Your task to perform on an android device: Go to notification settings Image 0: 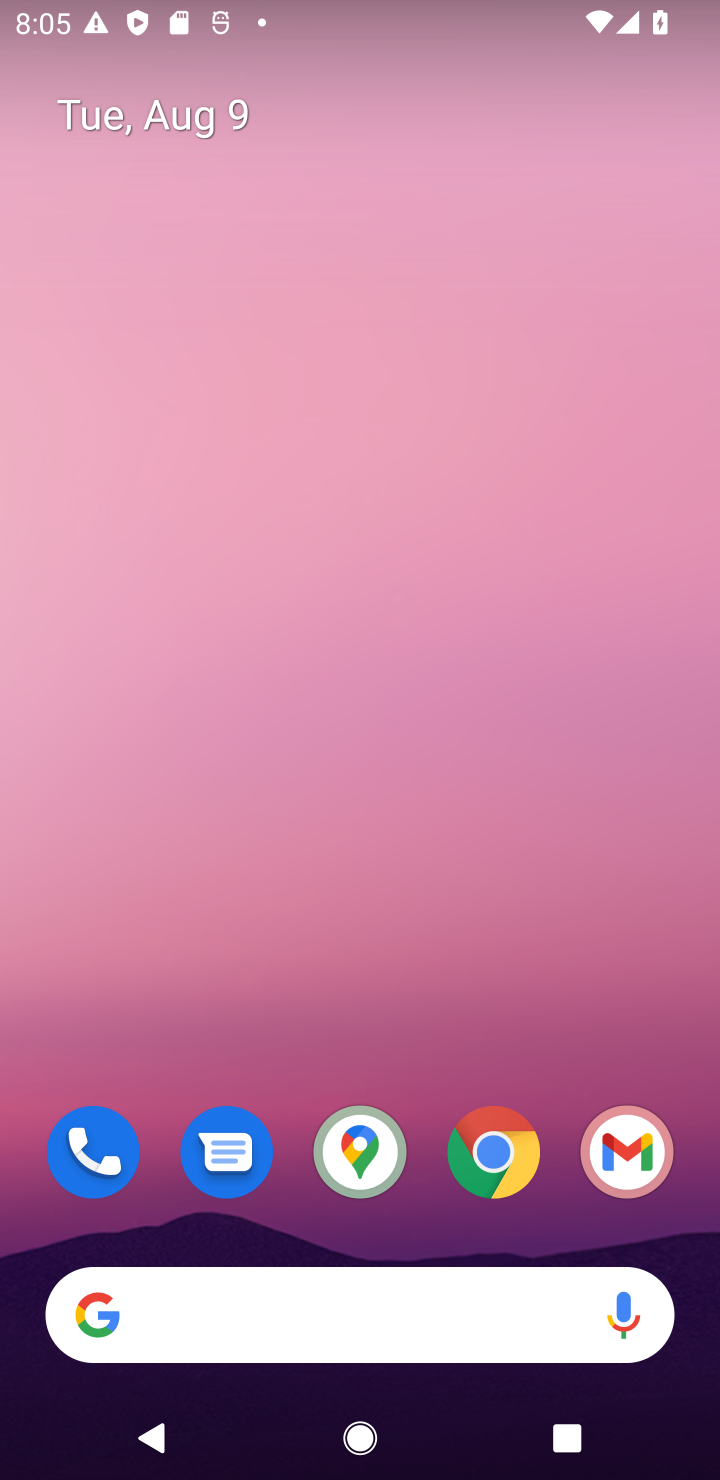
Step 0: drag from (290, 1105) to (294, 371)
Your task to perform on an android device: Go to notification settings Image 1: 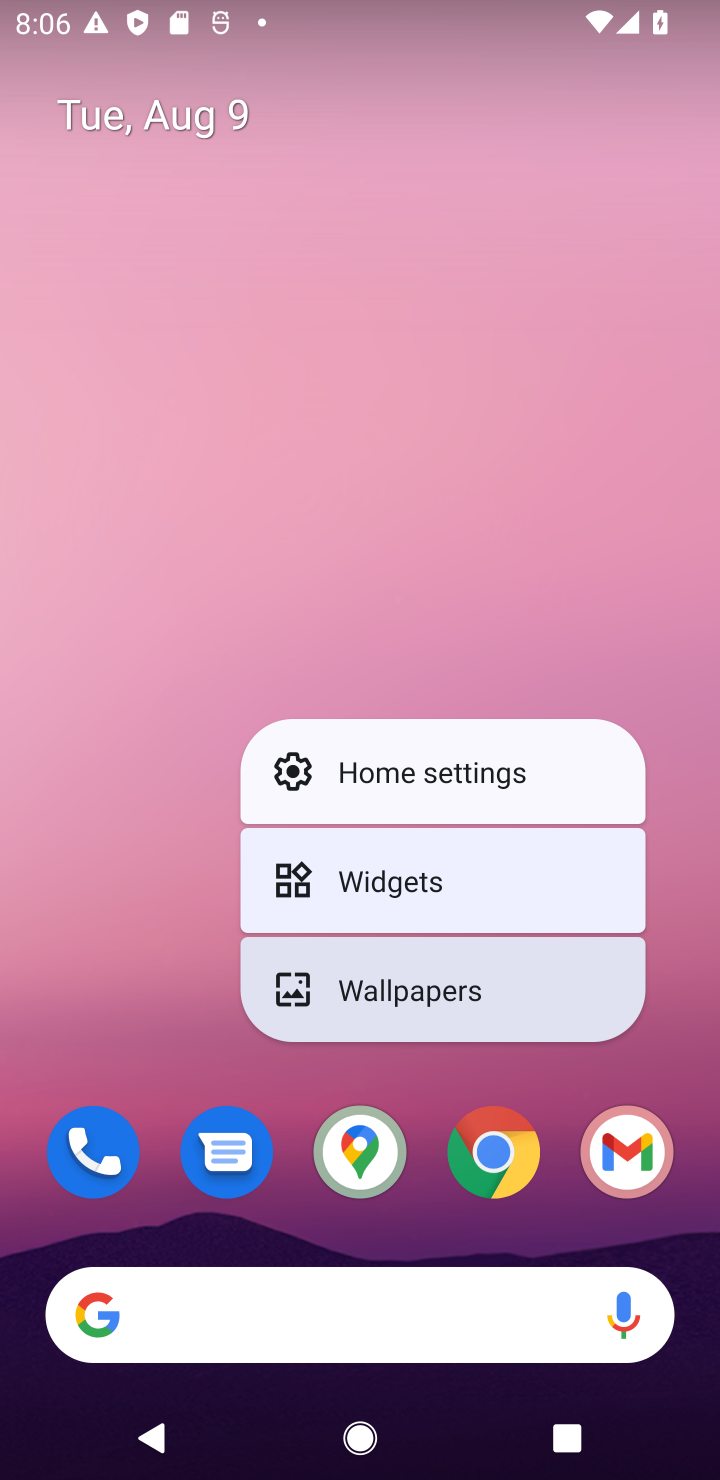
Step 1: drag from (275, 1226) to (44, 95)
Your task to perform on an android device: Go to notification settings Image 2: 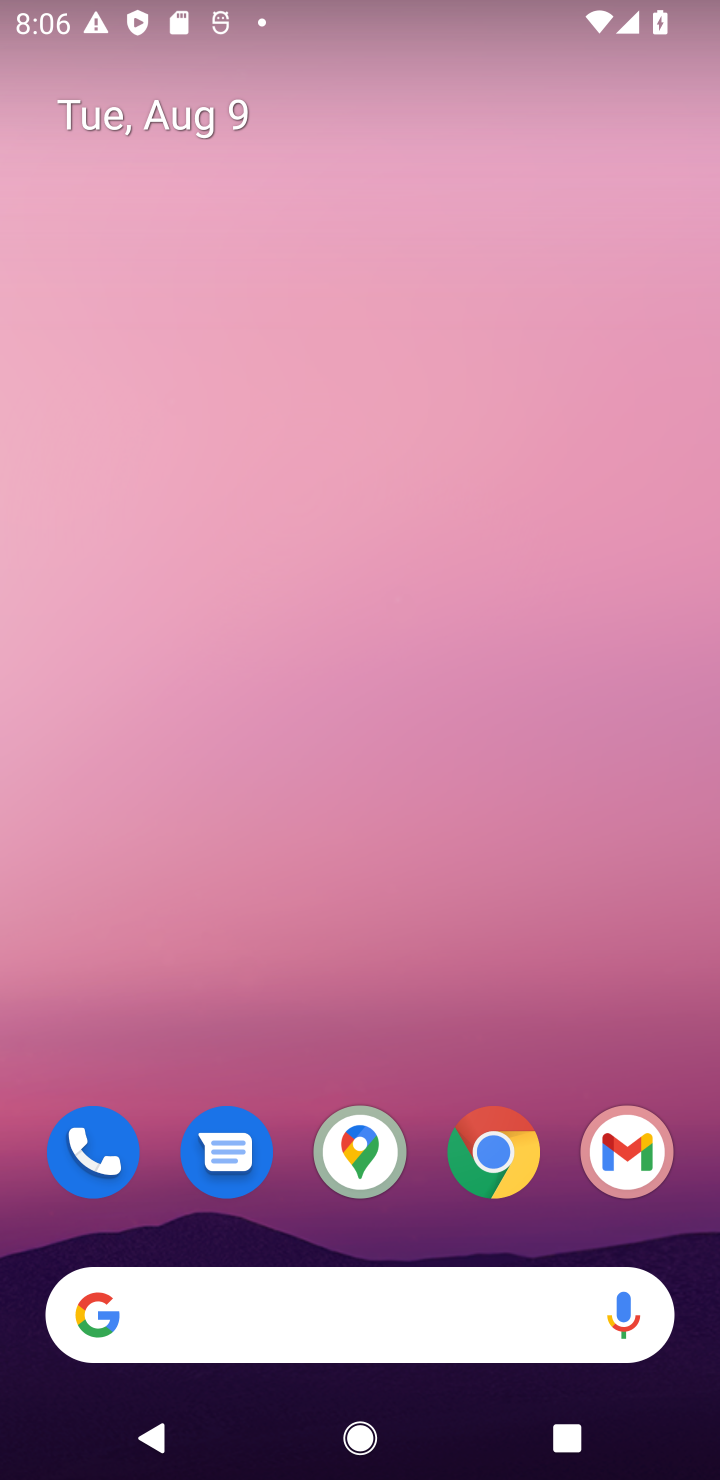
Step 2: drag from (310, 1252) to (363, 784)
Your task to perform on an android device: Go to notification settings Image 3: 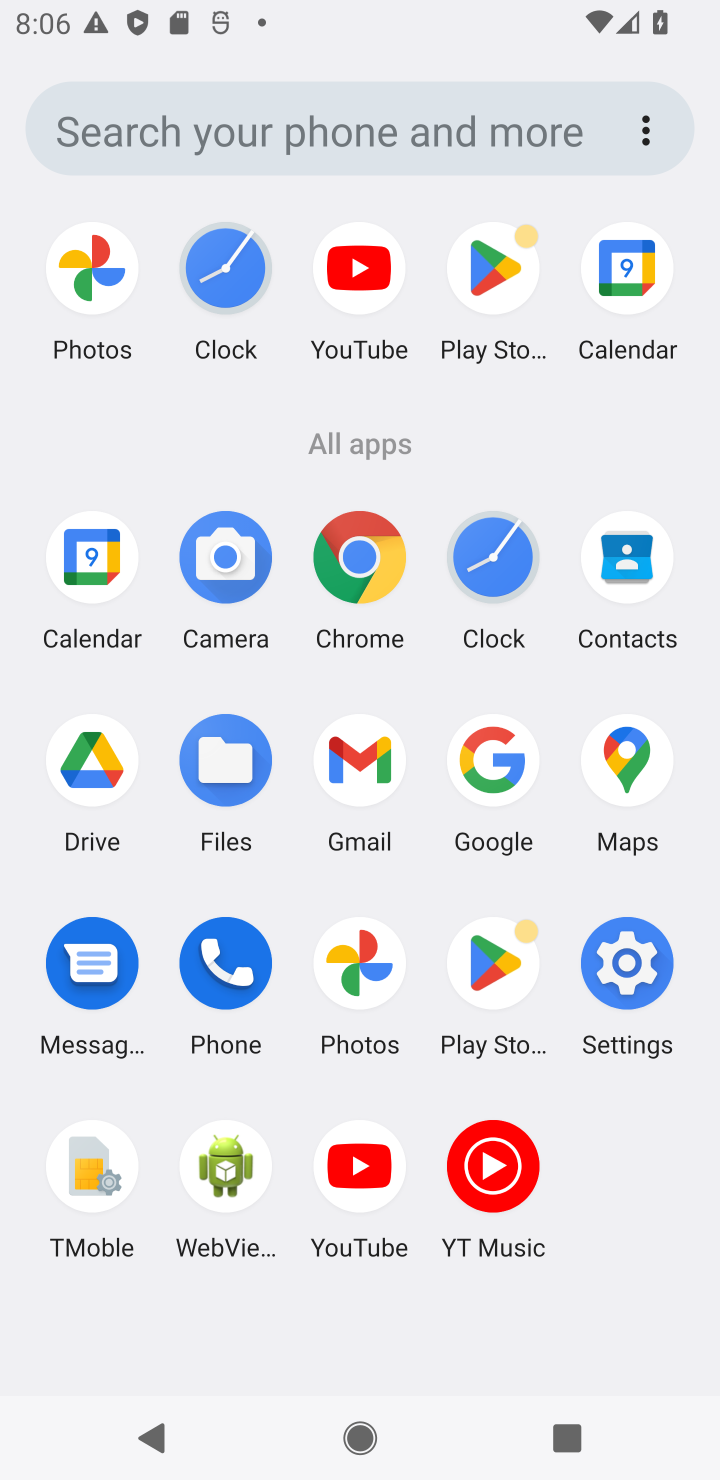
Step 3: click (606, 985)
Your task to perform on an android device: Go to notification settings Image 4: 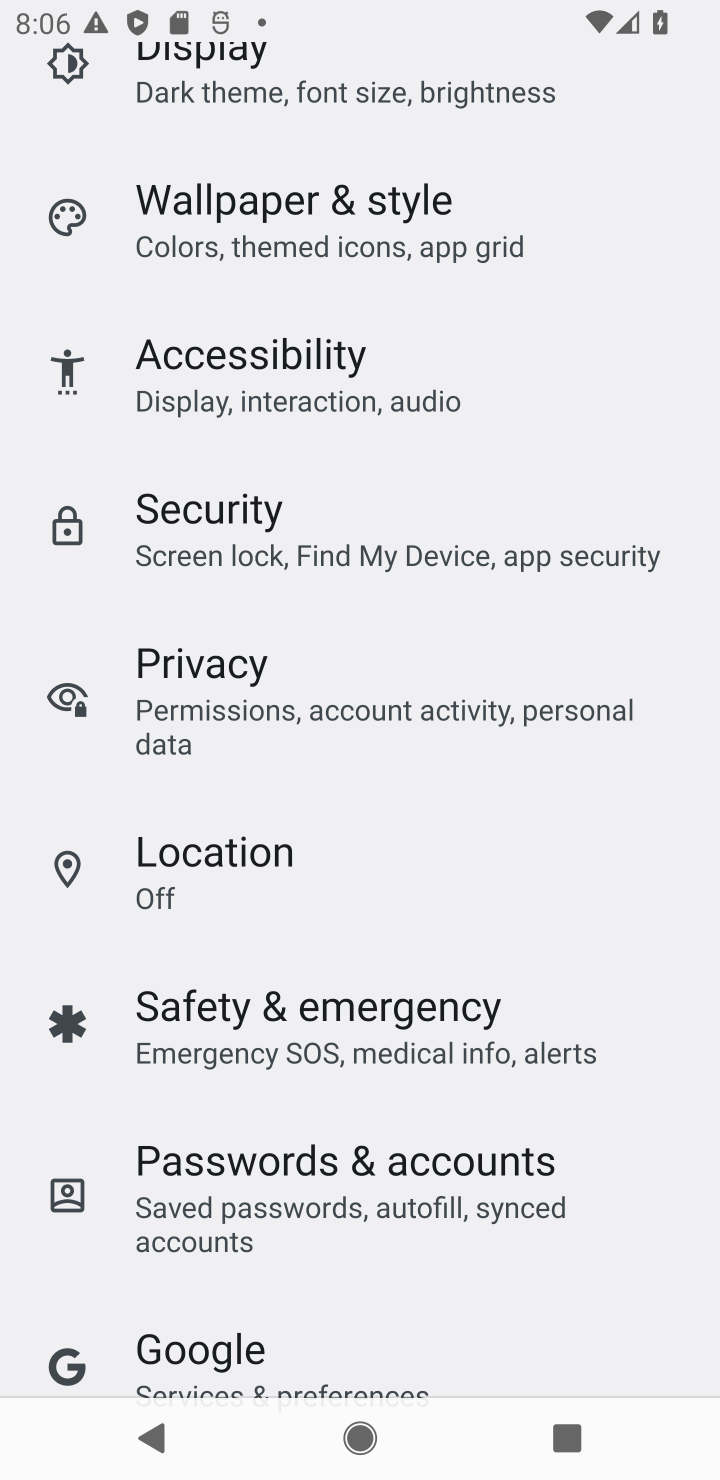
Step 4: drag from (372, 200) to (351, 884)
Your task to perform on an android device: Go to notification settings Image 5: 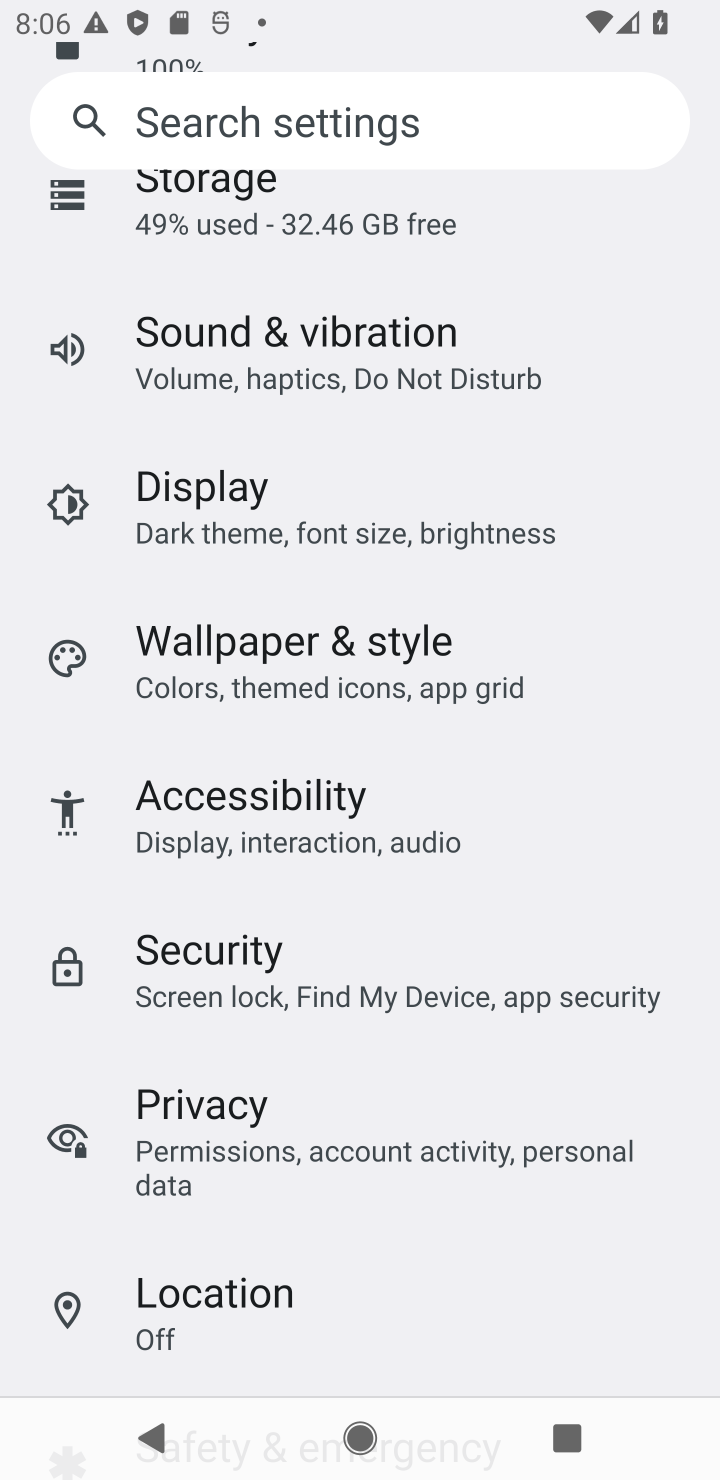
Step 5: drag from (251, 302) to (332, 1007)
Your task to perform on an android device: Go to notification settings Image 6: 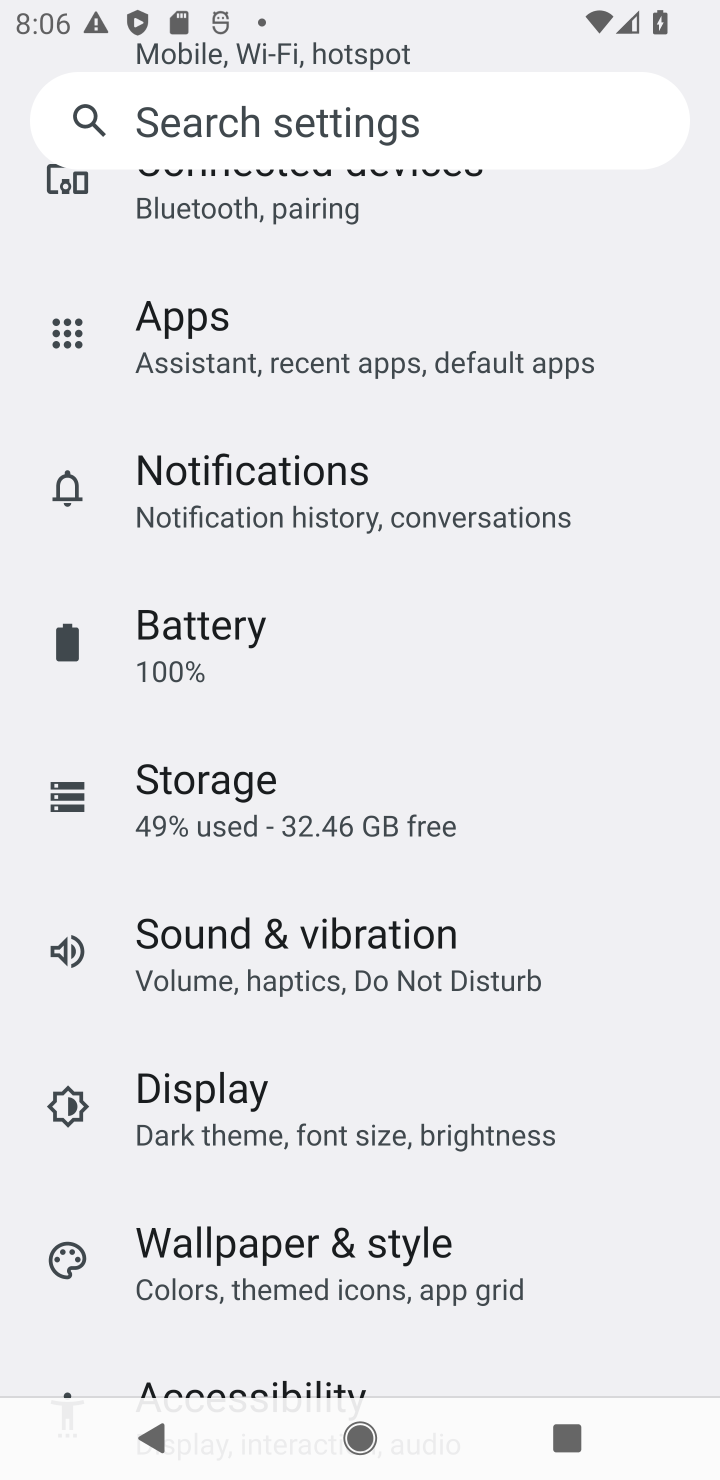
Step 6: click (272, 483)
Your task to perform on an android device: Go to notification settings Image 7: 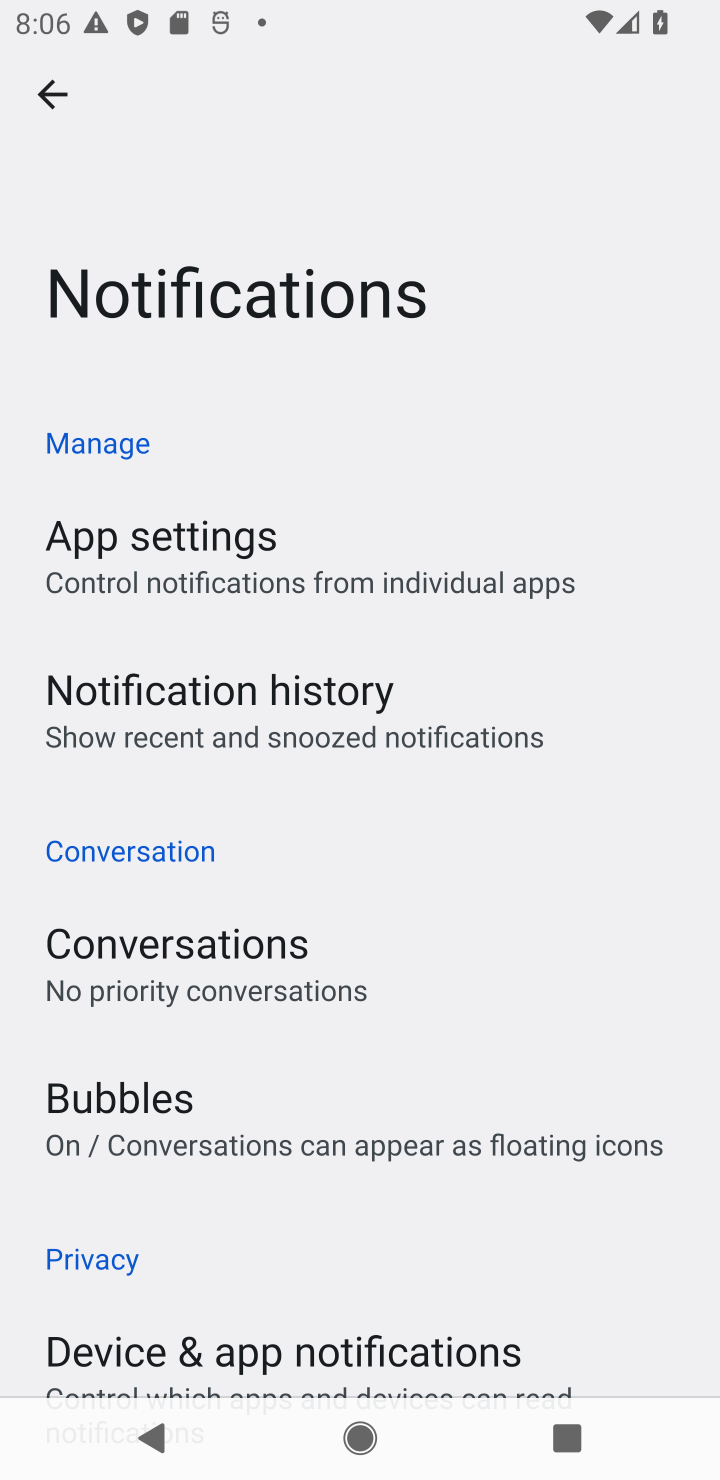
Step 7: task complete